Your task to perform on an android device: Open Google Maps and go to "Timeline" Image 0: 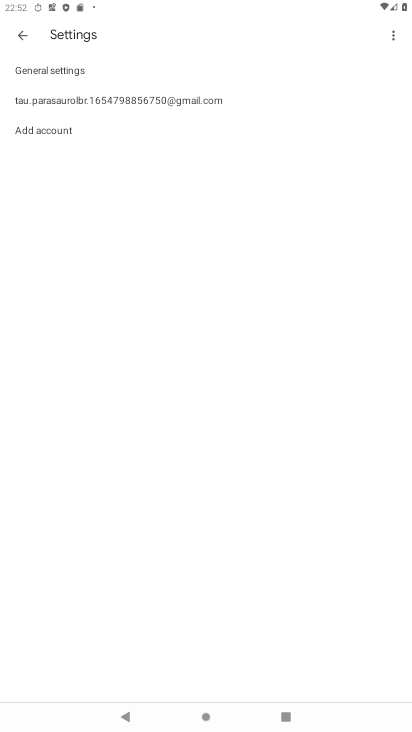
Step 0: press home button
Your task to perform on an android device: Open Google Maps and go to "Timeline" Image 1: 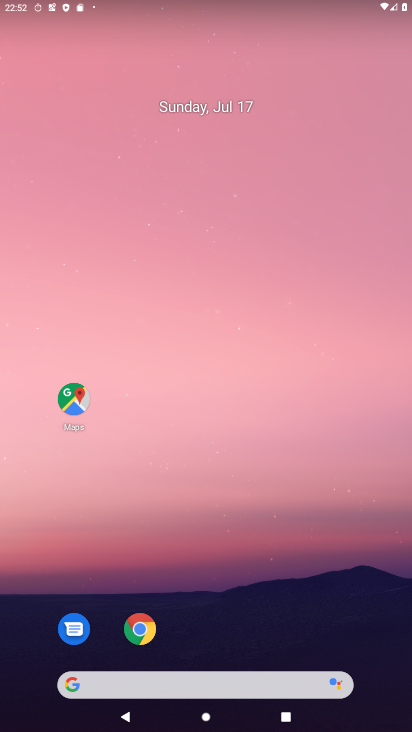
Step 1: drag from (222, 721) to (213, 150)
Your task to perform on an android device: Open Google Maps and go to "Timeline" Image 2: 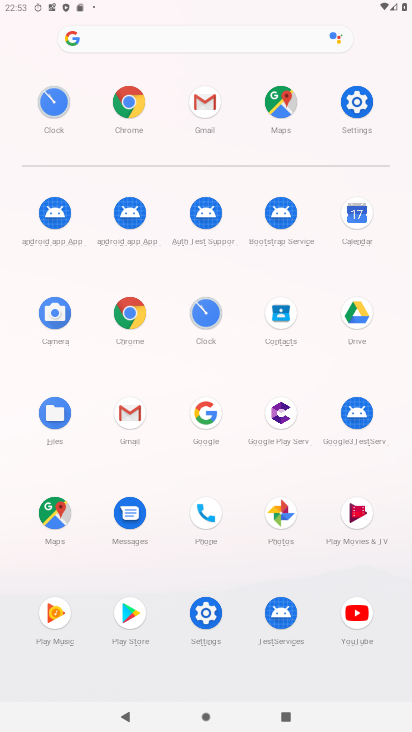
Step 2: click (55, 518)
Your task to perform on an android device: Open Google Maps and go to "Timeline" Image 3: 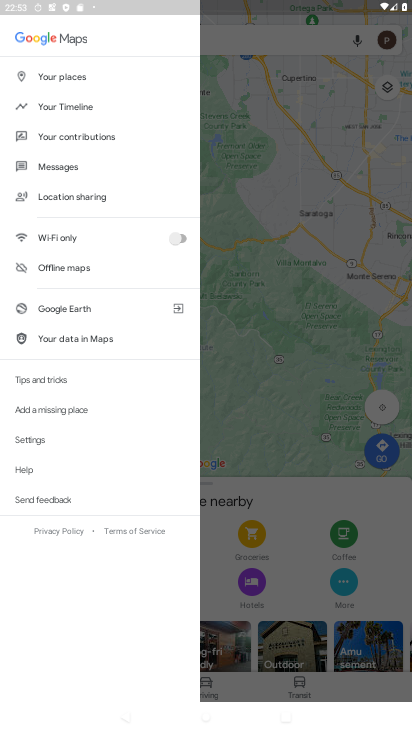
Step 3: click (52, 102)
Your task to perform on an android device: Open Google Maps and go to "Timeline" Image 4: 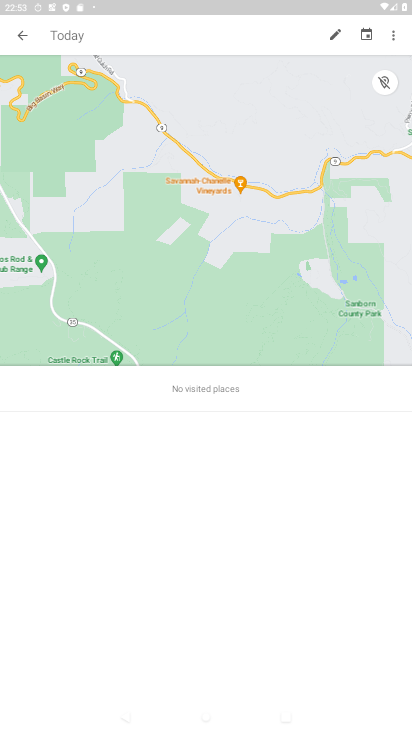
Step 4: task complete